Your task to perform on an android device: Open internet settings Image 0: 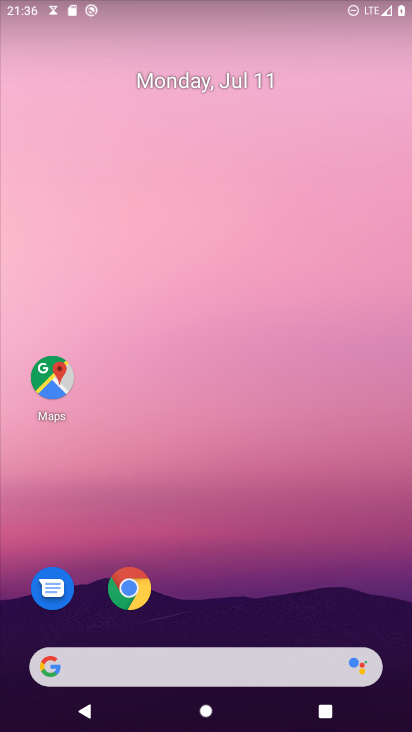
Step 0: press home button
Your task to perform on an android device: Open internet settings Image 1: 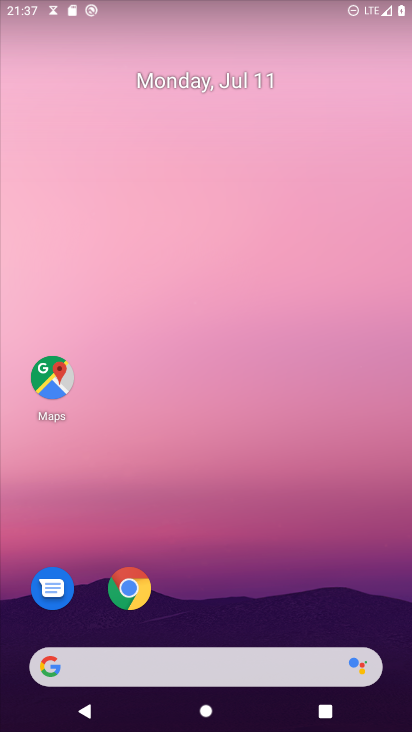
Step 1: drag from (203, 636) to (253, 30)
Your task to perform on an android device: Open internet settings Image 2: 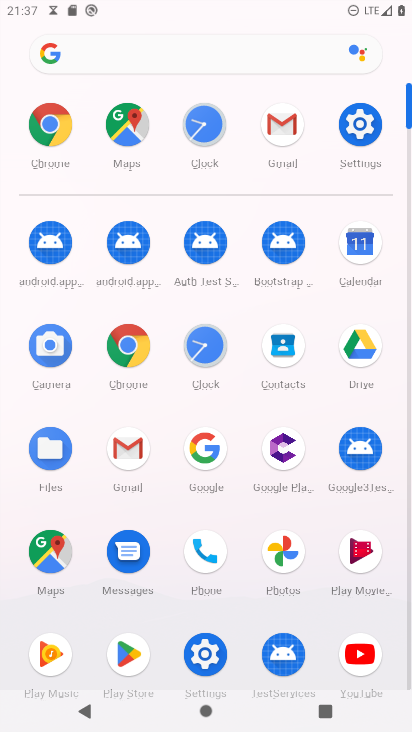
Step 2: click (362, 124)
Your task to perform on an android device: Open internet settings Image 3: 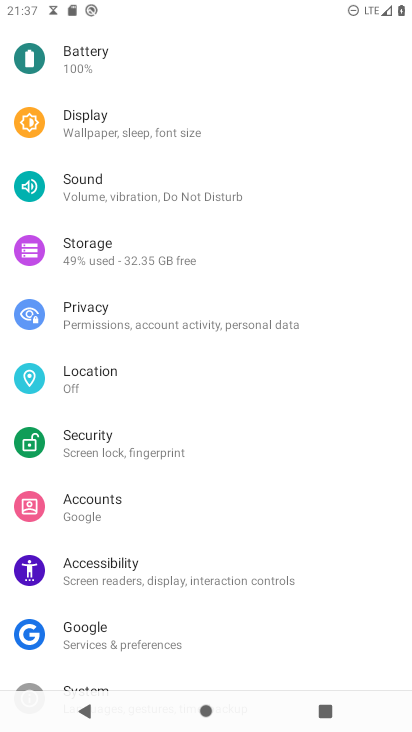
Step 3: drag from (206, 91) to (212, 614)
Your task to perform on an android device: Open internet settings Image 4: 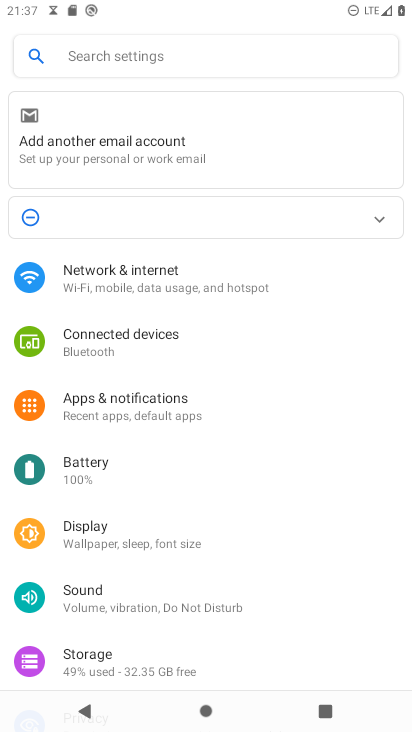
Step 4: click (139, 282)
Your task to perform on an android device: Open internet settings Image 5: 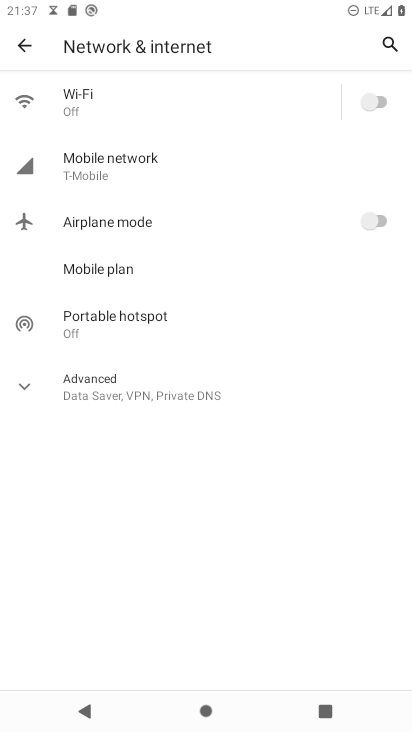
Step 5: task complete